Your task to perform on an android device: Go to Maps Image 0: 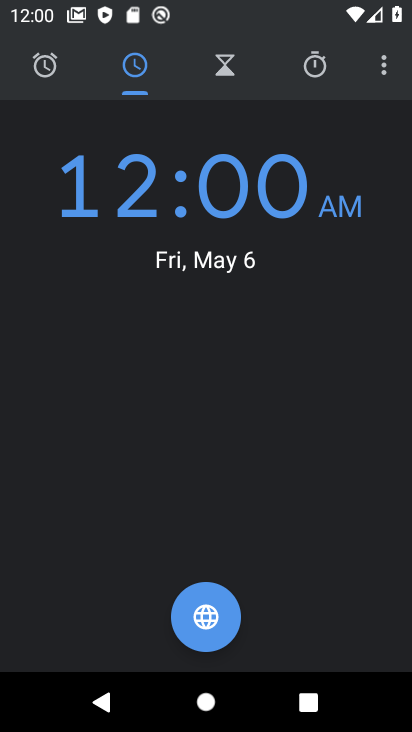
Step 0: press home button
Your task to perform on an android device: Go to Maps Image 1: 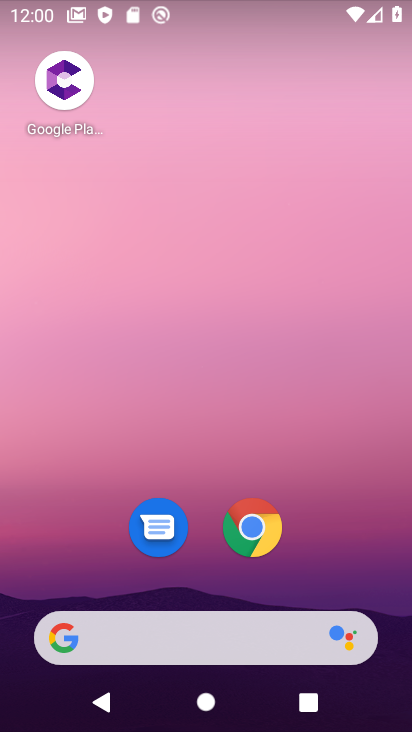
Step 1: drag from (179, 291) to (115, 77)
Your task to perform on an android device: Go to Maps Image 2: 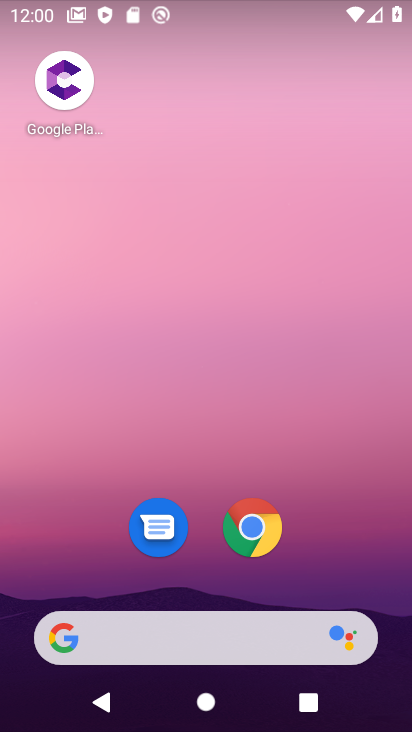
Step 2: drag from (341, 554) to (248, 59)
Your task to perform on an android device: Go to Maps Image 3: 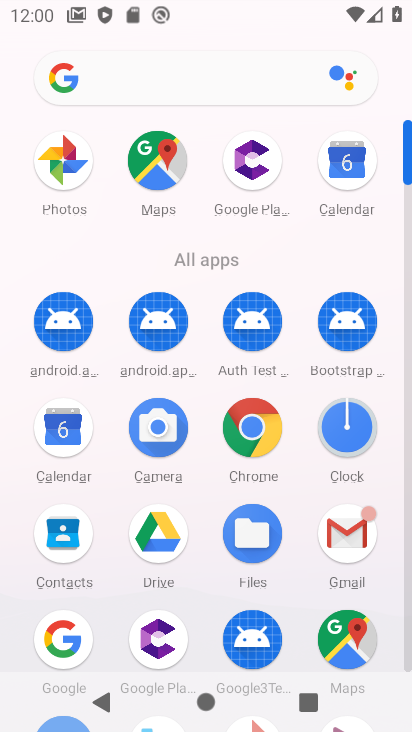
Step 3: click (156, 157)
Your task to perform on an android device: Go to Maps Image 4: 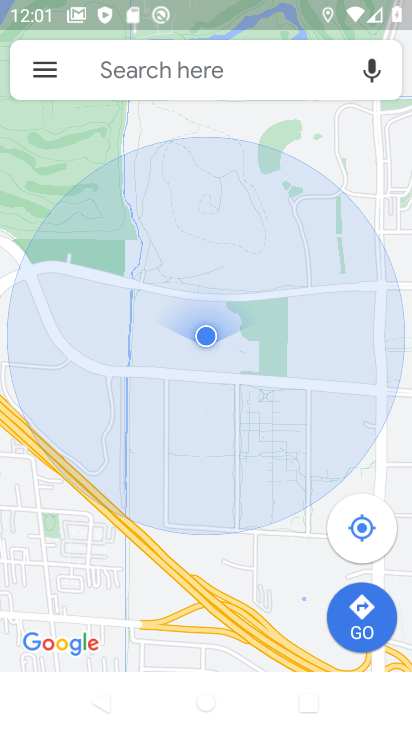
Step 4: task complete